Your task to perform on an android device: delete browsing data in the chrome app Image 0: 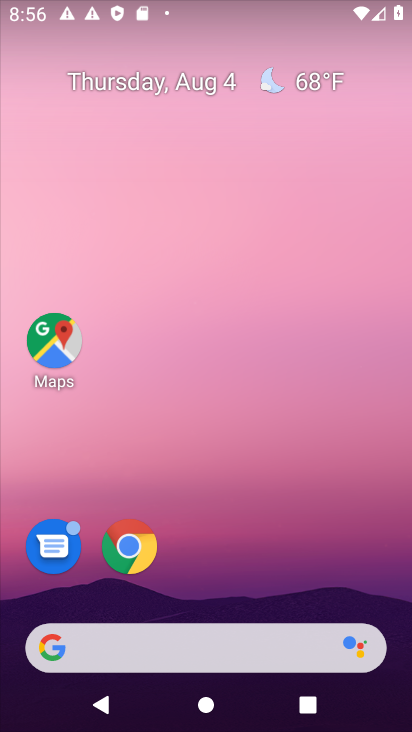
Step 0: press home button
Your task to perform on an android device: delete browsing data in the chrome app Image 1: 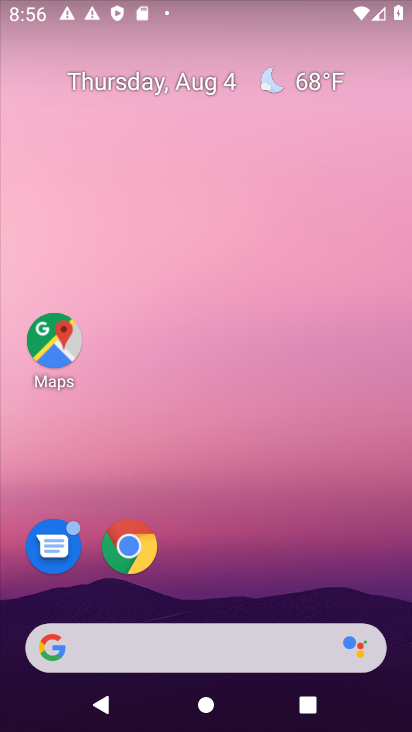
Step 1: click (120, 549)
Your task to perform on an android device: delete browsing data in the chrome app Image 2: 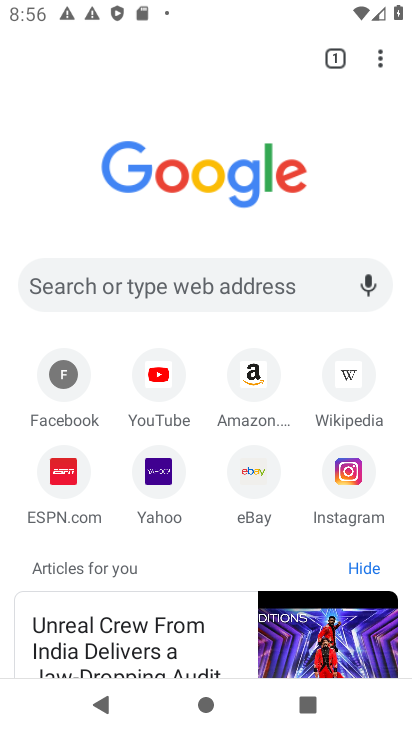
Step 2: drag from (385, 55) to (190, 489)
Your task to perform on an android device: delete browsing data in the chrome app Image 3: 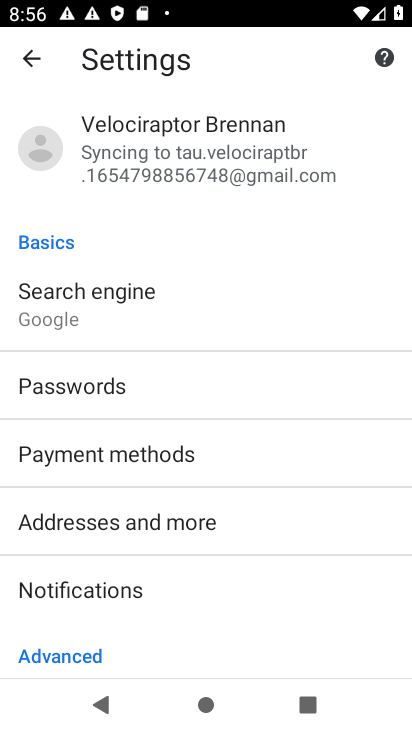
Step 3: drag from (275, 609) to (299, 163)
Your task to perform on an android device: delete browsing data in the chrome app Image 4: 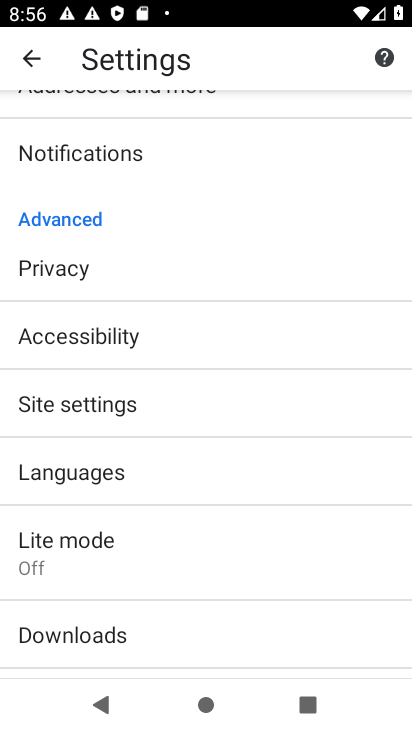
Step 4: click (50, 270)
Your task to perform on an android device: delete browsing data in the chrome app Image 5: 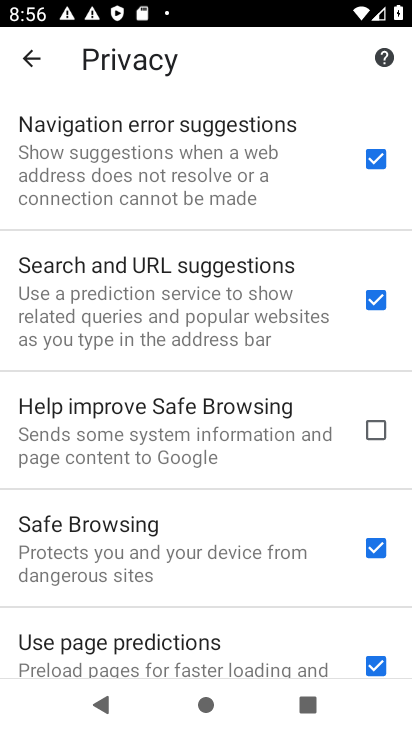
Step 5: drag from (291, 595) to (300, 1)
Your task to perform on an android device: delete browsing data in the chrome app Image 6: 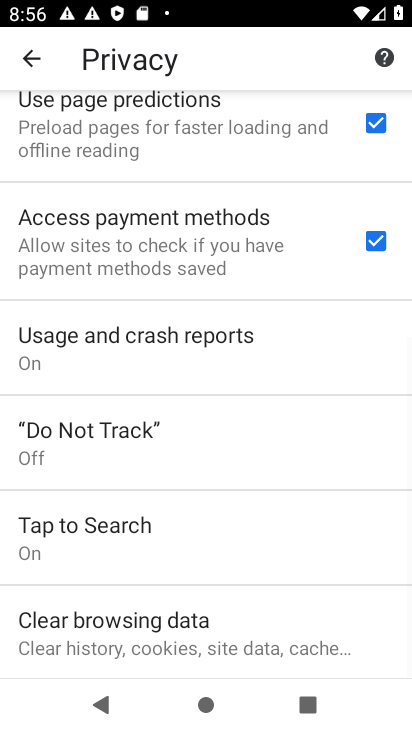
Step 6: click (139, 636)
Your task to perform on an android device: delete browsing data in the chrome app Image 7: 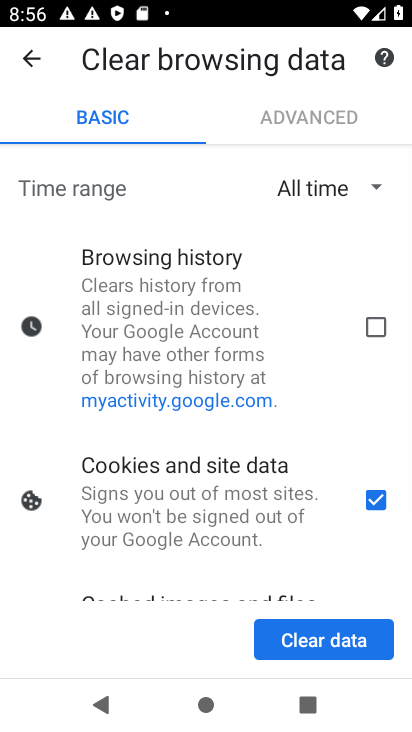
Step 7: click (377, 328)
Your task to perform on an android device: delete browsing data in the chrome app Image 8: 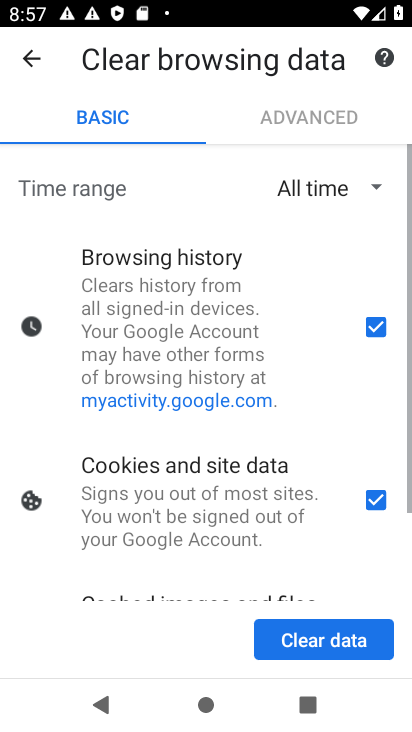
Step 8: drag from (355, 390) to (372, 10)
Your task to perform on an android device: delete browsing data in the chrome app Image 9: 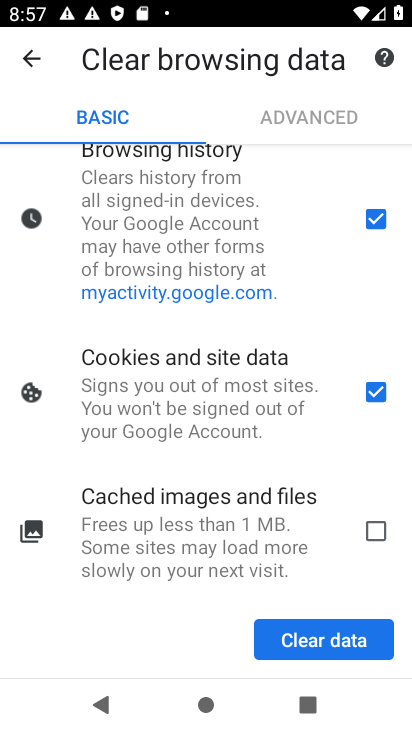
Step 9: click (381, 529)
Your task to perform on an android device: delete browsing data in the chrome app Image 10: 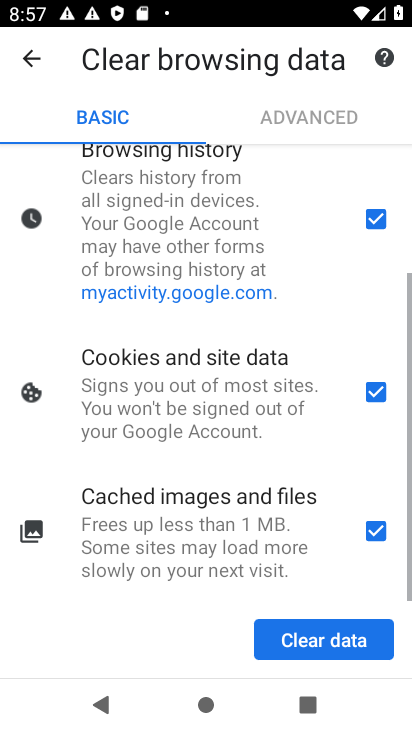
Step 10: click (282, 638)
Your task to perform on an android device: delete browsing data in the chrome app Image 11: 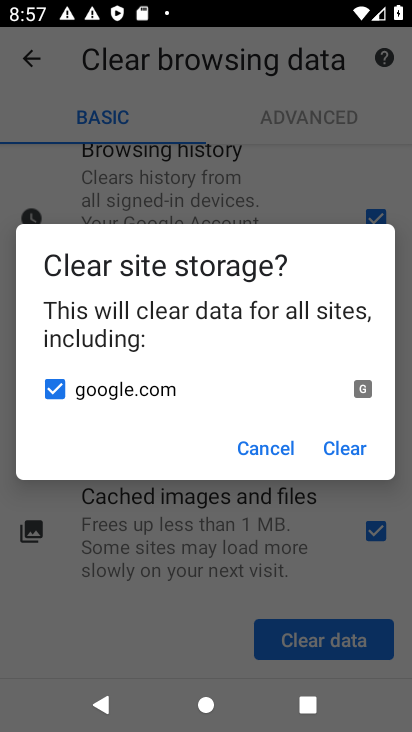
Step 11: click (333, 449)
Your task to perform on an android device: delete browsing data in the chrome app Image 12: 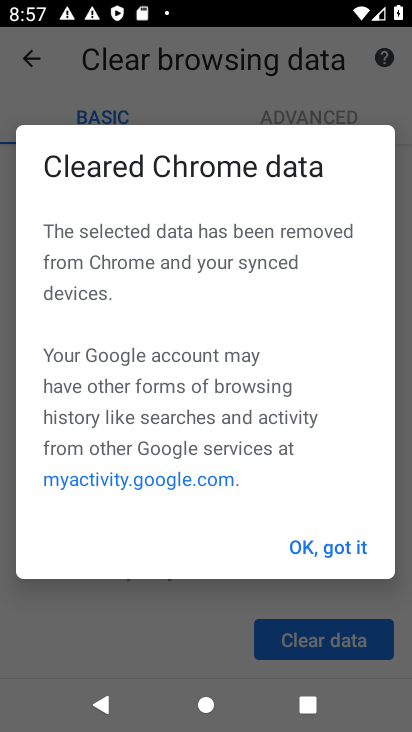
Step 12: click (342, 543)
Your task to perform on an android device: delete browsing data in the chrome app Image 13: 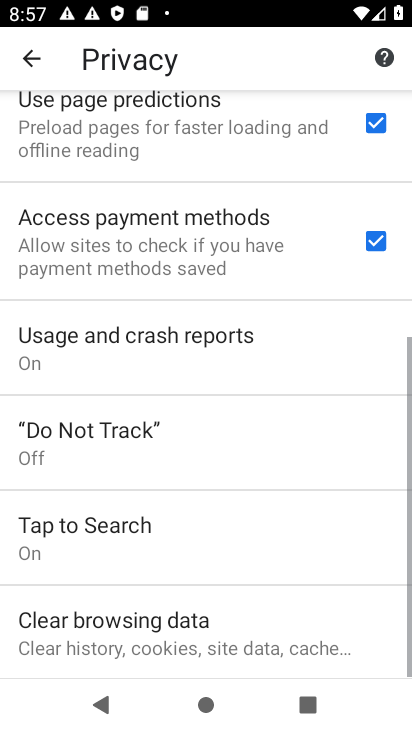
Step 13: task complete